Your task to perform on an android device: open chrome privacy settings Image 0: 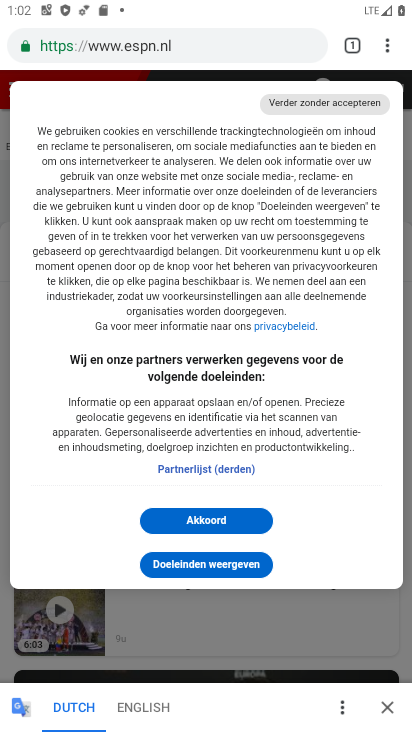
Step 0: press home button
Your task to perform on an android device: open chrome privacy settings Image 1: 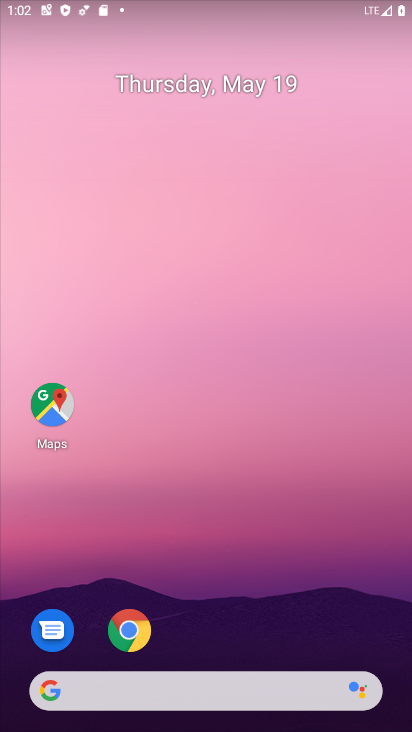
Step 1: click (117, 623)
Your task to perform on an android device: open chrome privacy settings Image 2: 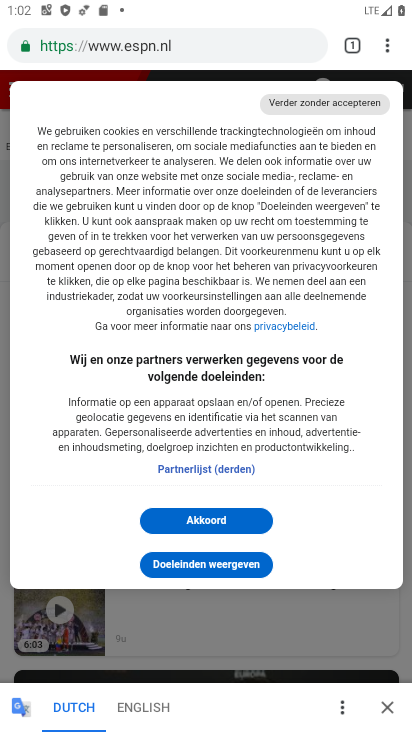
Step 2: click (232, 516)
Your task to perform on an android device: open chrome privacy settings Image 3: 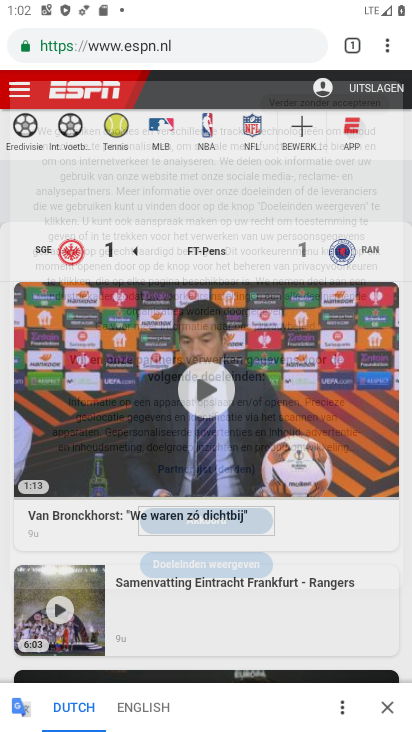
Step 3: click (387, 48)
Your task to perform on an android device: open chrome privacy settings Image 4: 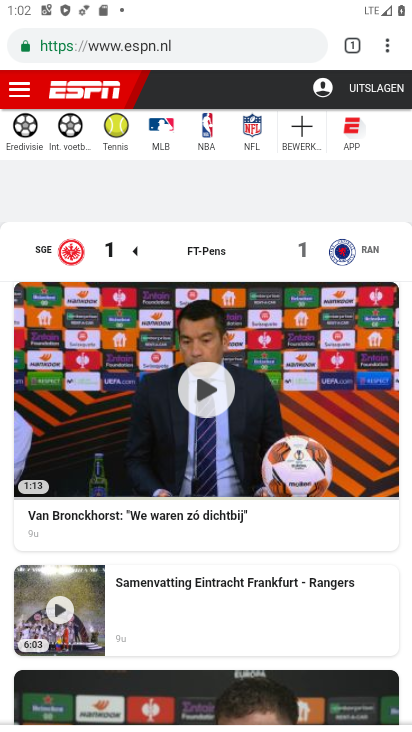
Step 4: drag from (386, 47) to (223, 534)
Your task to perform on an android device: open chrome privacy settings Image 5: 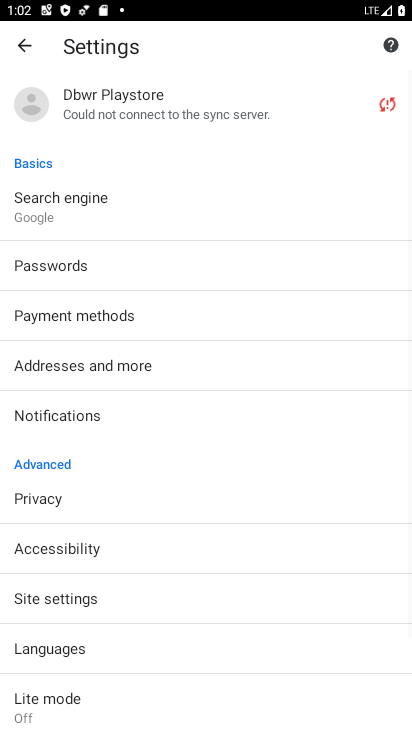
Step 5: click (82, 495)
Your task to perform on an android device: open chrome privacy settings Image 6: 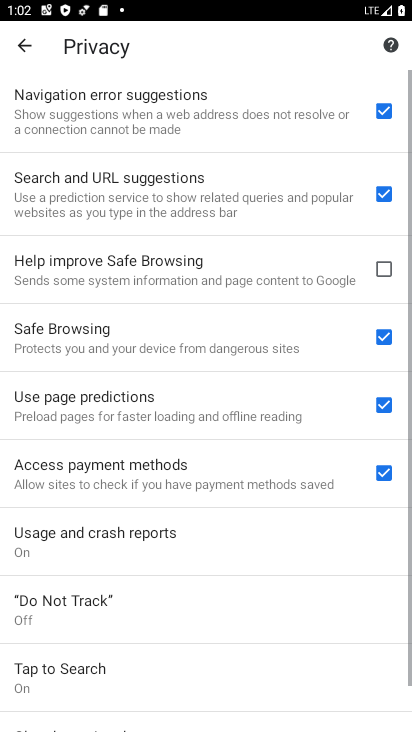
Step 6: task complete